Your task to perform on an android device: stop showing notifications on the lock screen Image 0: 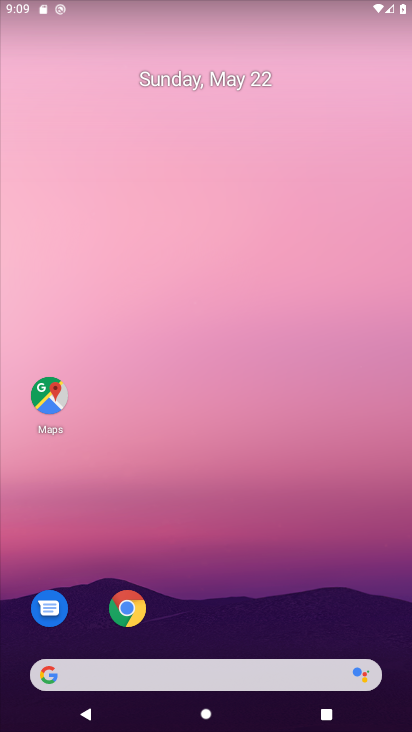
Step 0: drag from (210, 463) to (148, 18)
Your task to perform on an android device: stop showing notifications on the lock screen Image 1: 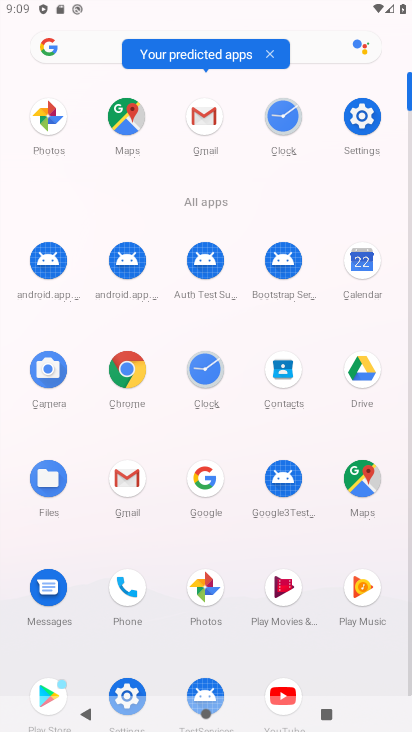
Step 1: drag from (0, 599) to (4, 291)
Your task to perform on an android device: stop showing notifications on the lock screen Image 2: 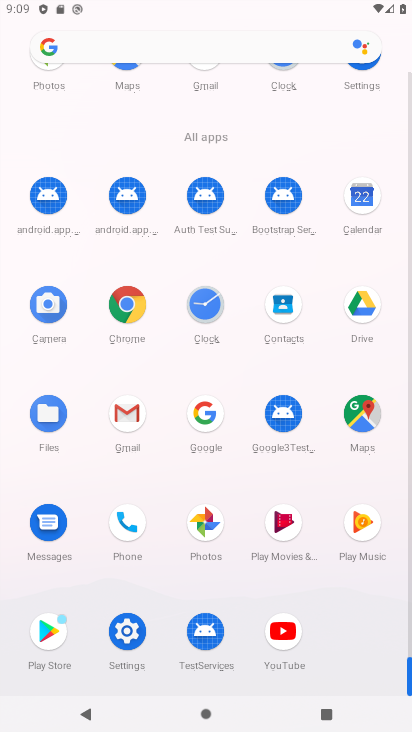
Step 2: click (124, 631)
Your task to perform on an android device: stop showing notifications on the lock screen Image 3: 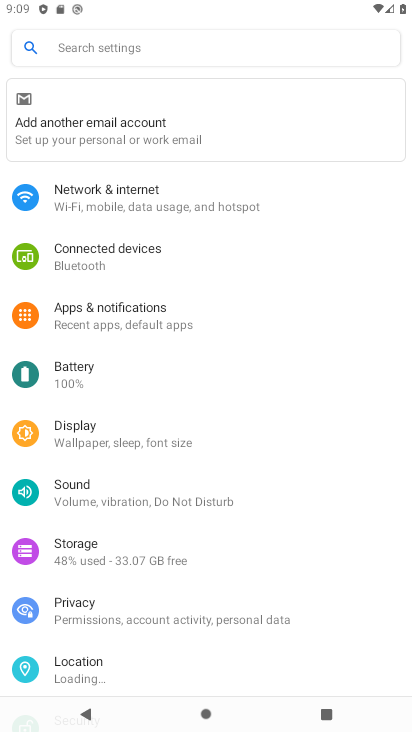
Step 3: click (143, 313)
Your task to perform on an android device: stop showing notifications on the lock screen Image 4: 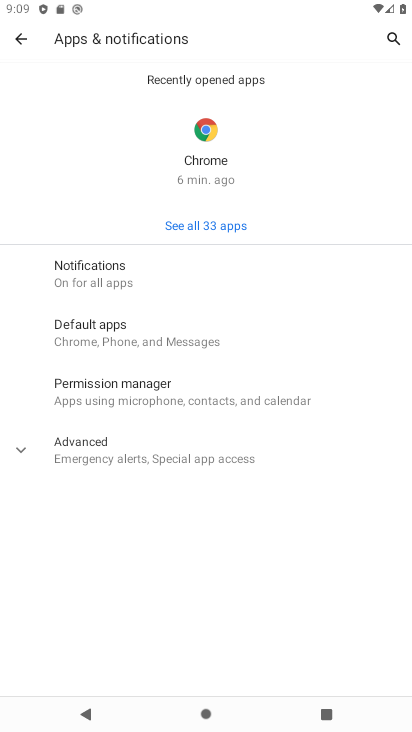
Step 4: click (20, 451)
Your task to perform on an android device: stop showing notifications on the lock screen Image 5: 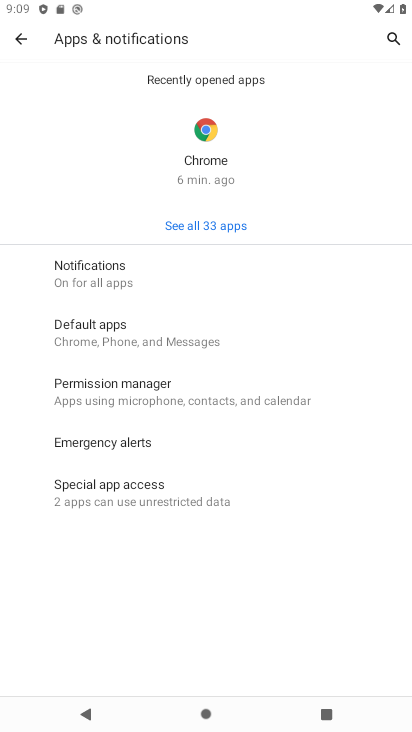
Step 5: click (129, 284)
Your task to perform on an android device: stop showing notifications on the lock screen Image 6: 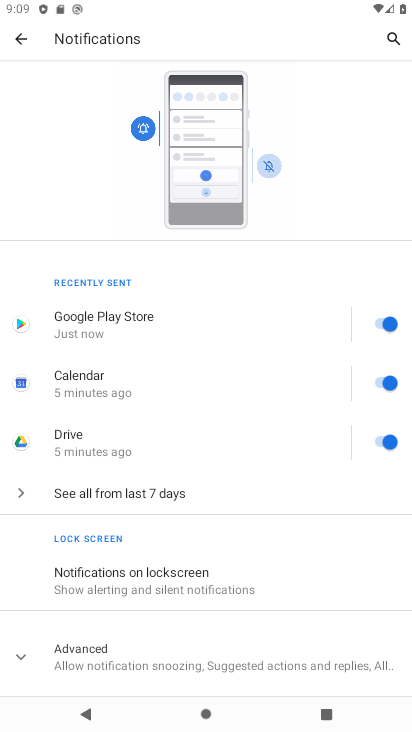
Step 6: drag from (255, 465) to (273, 128)
Your task to perform on an android device: stop showing notifications on the lock screen Image 7: 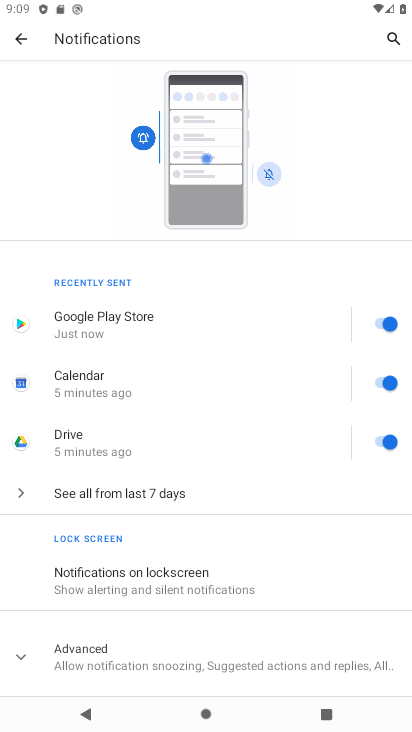
Step 7: click (29, 655)
Your task to perform on an android device: stop showing notifications on the lock screen Image 8: 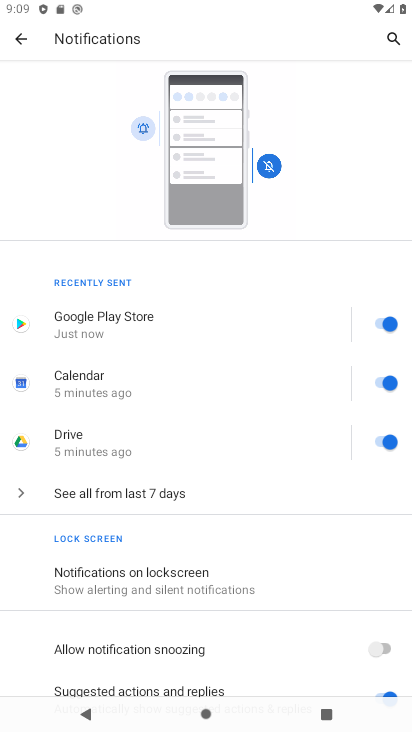
Step 8: click (173, 578)
Your task to perform on an android device: stop showing notifications on the lock screen Image 9: 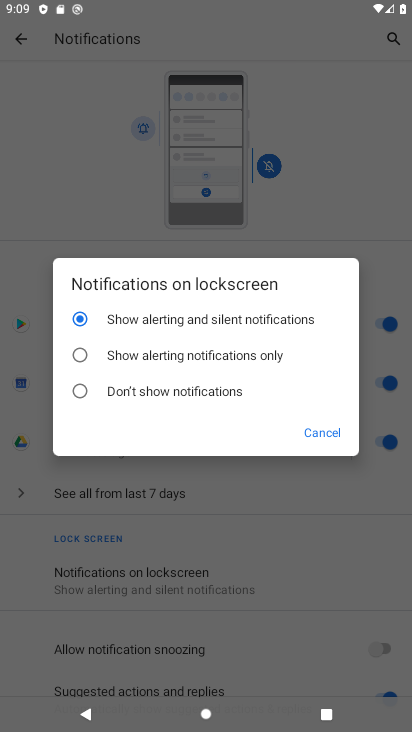
Step 9: click (147, 391)
Your task to perform on an android device: stop showing notifications on the lock screen Image 10: 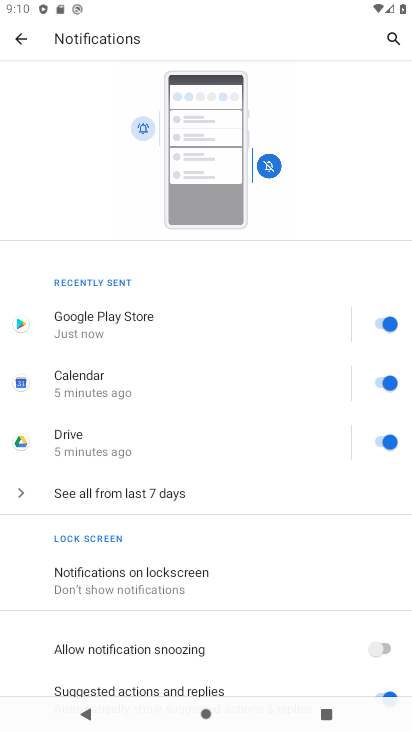
Step 10: task complete